Your task to perform on an android device: turn off priority inbox in the gmail app Image 0: 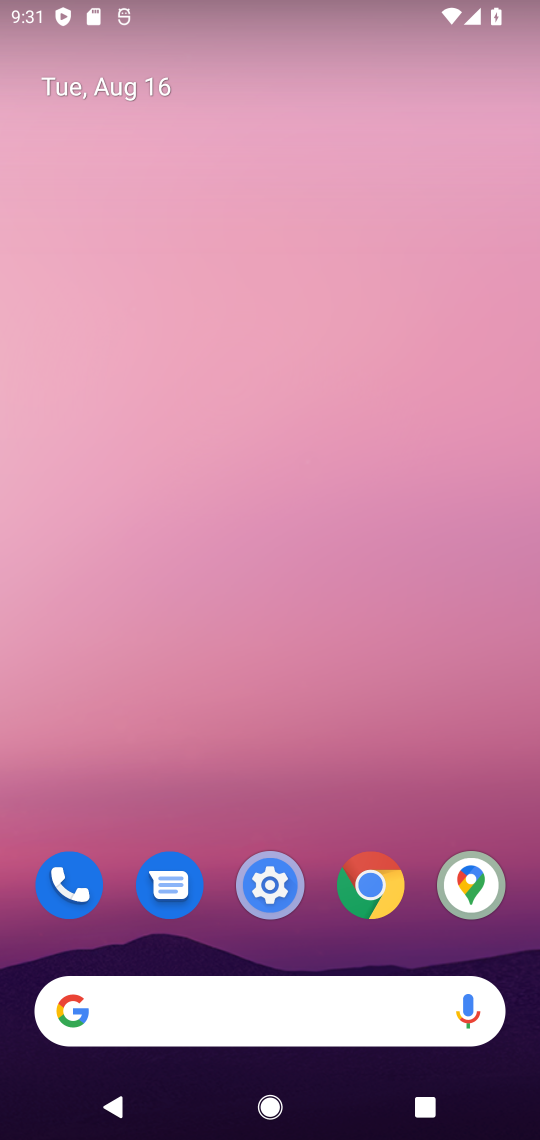
Step 0: drag from (324, 32) to (266, 575)
Your task to perform on an android device: turn off priority inbox in the gmail app Image 1: 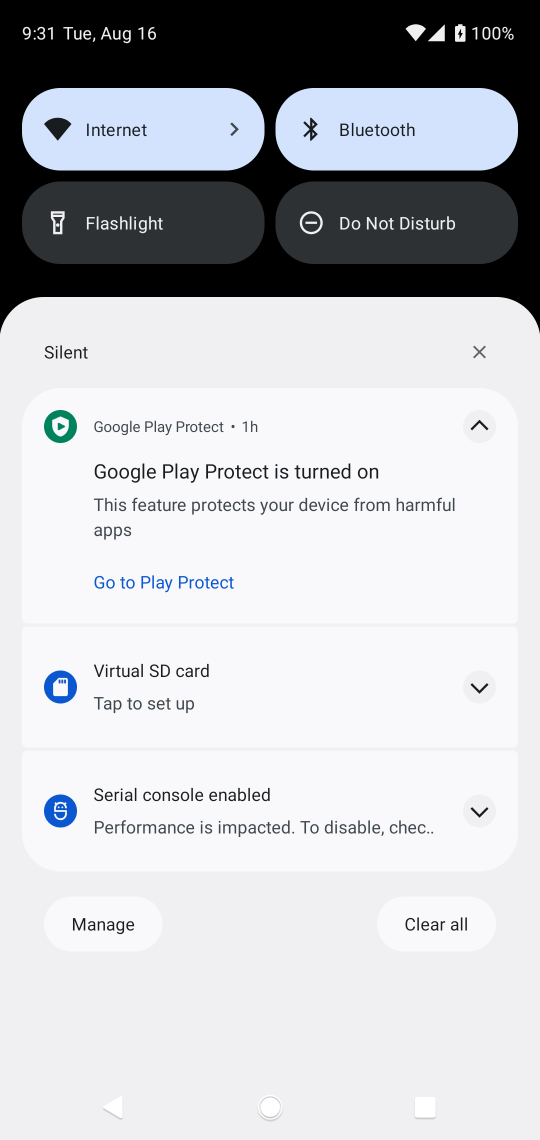
Step 1: press home button
Your task to perform on an android device: turn off priority inbox in the gmail app Image 2: 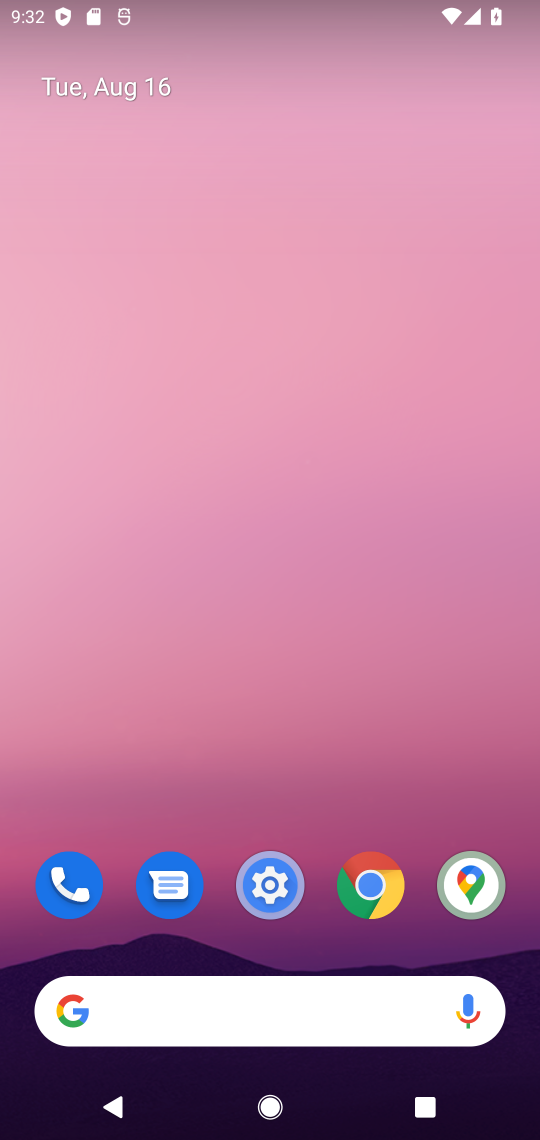
Step 2: drag from (247, 826) to (261, 17)
Your task to perform on an android device: turn off priority inbox in the gmail app Image 3: 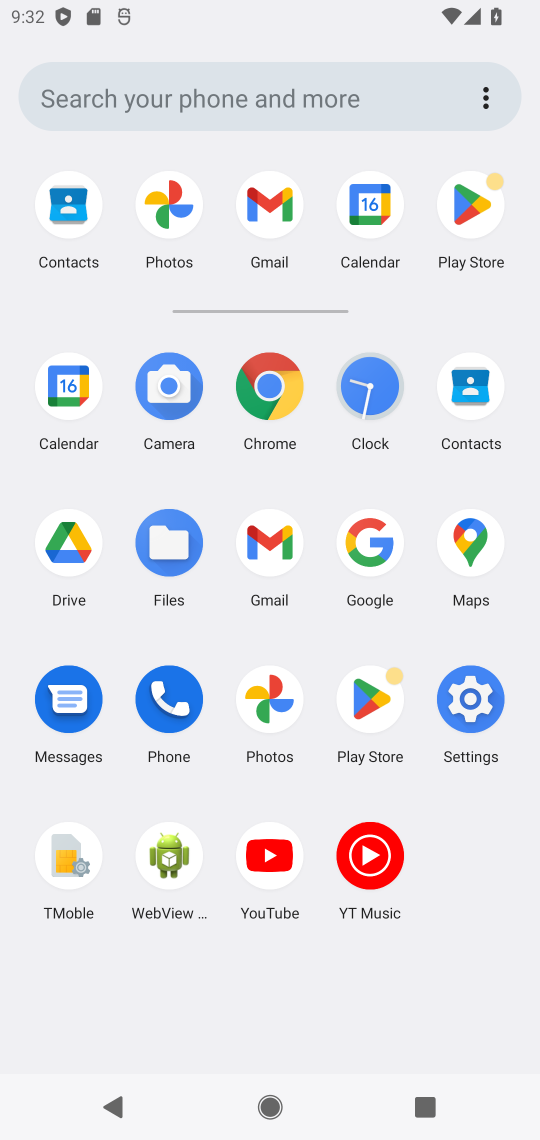
Step 3: click (279, 532)
Your task to perform on an android device: turn off priority inbox in the gmail app Image 4: 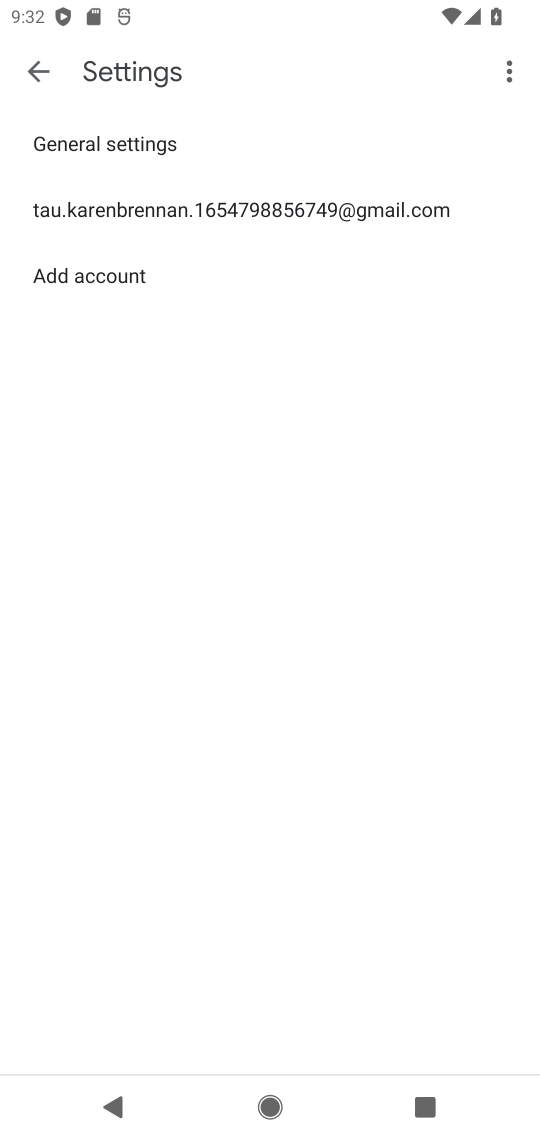
Step 4: click (196, 200)
Your task to perform on an android device: turn off priority inbox in the gmail app Image 5: 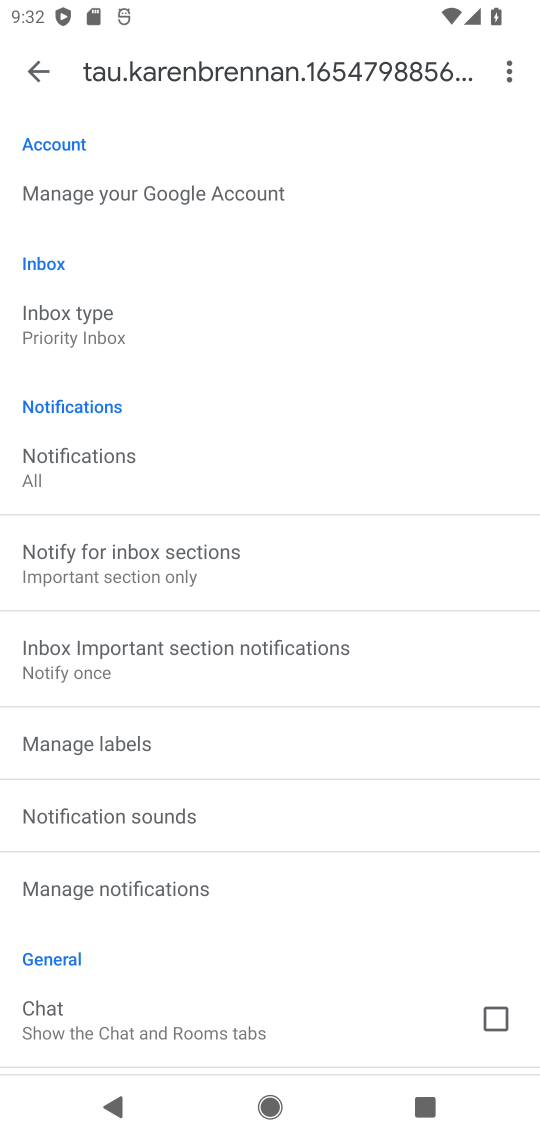
Step 5: click (79, 327)
Your task to perform on an android device: turn off priority inbox in the gmail app Image 6: 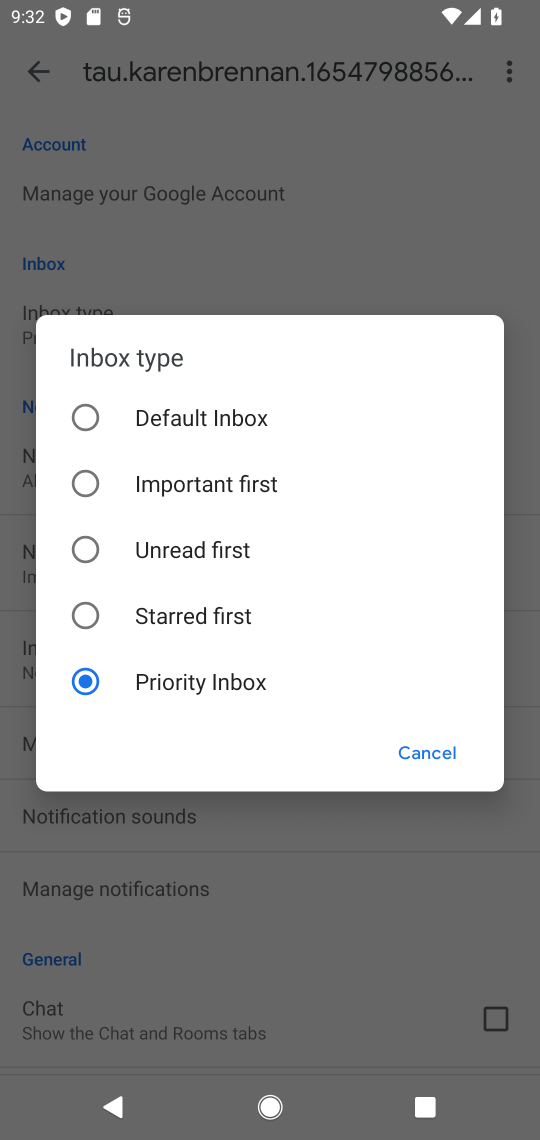
Step 6: click (97, 420)
Your task to perform on an android device: turn off priority inbox in the gmail app Image 7: 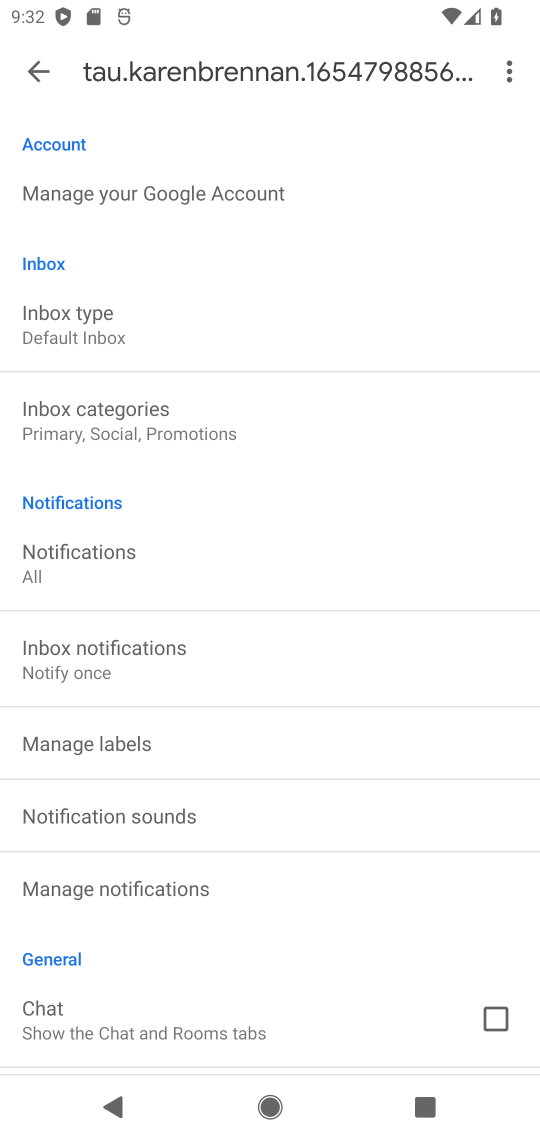
Step 7: task complete